Your task to perform on an android device: Is it going to rain tomorrow? Image 0: 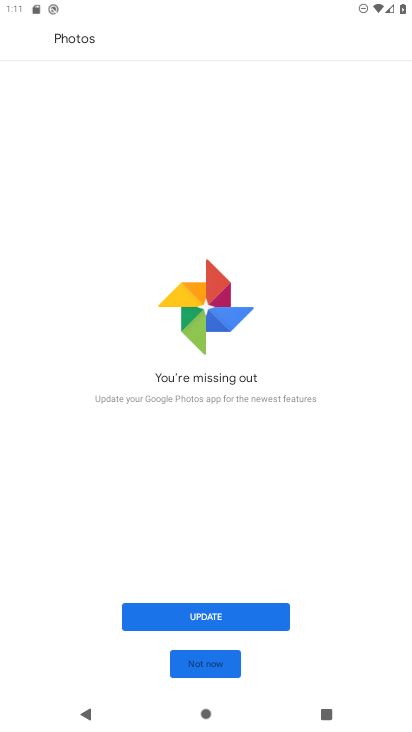
Step 0: press home button
Your task to perform on an android device: Is it going to rain tomorrow? Image 1: 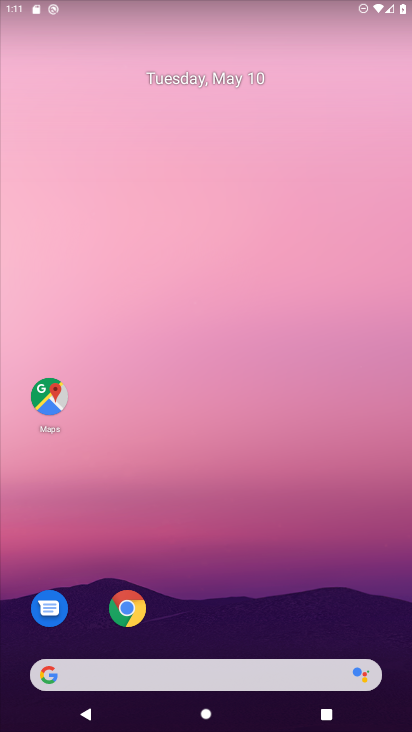
Step 1: drag from (360, 580) to (329, 171)
Your task to perform on an android device: Is it going to rain tomorrow? Image 2: 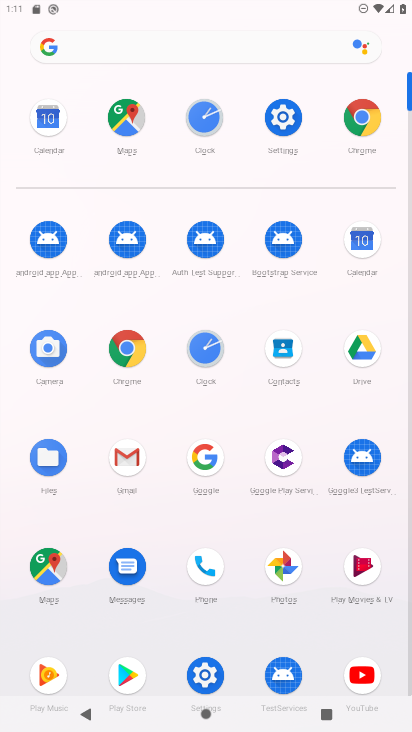
Step 2: click (122, 315)
Your task to perform on an android device: Is it going to rain tomorrow? Image 3: 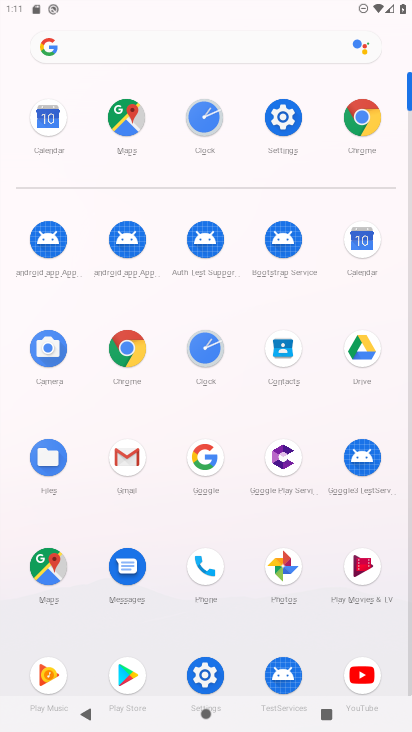
Step 3: click (124, 340)
Your task to perform on an android device: Is it going to rain tomorrow? Image 4: 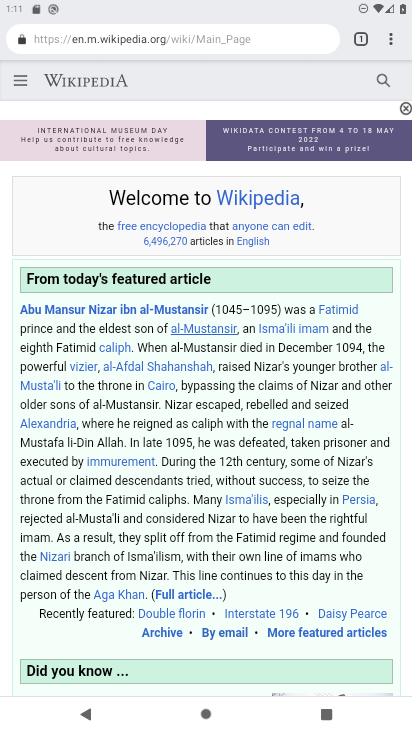
Step 4: click (181, 37)
Your task to perform on an android device: Is it going to rain tomorrow? Image 5: 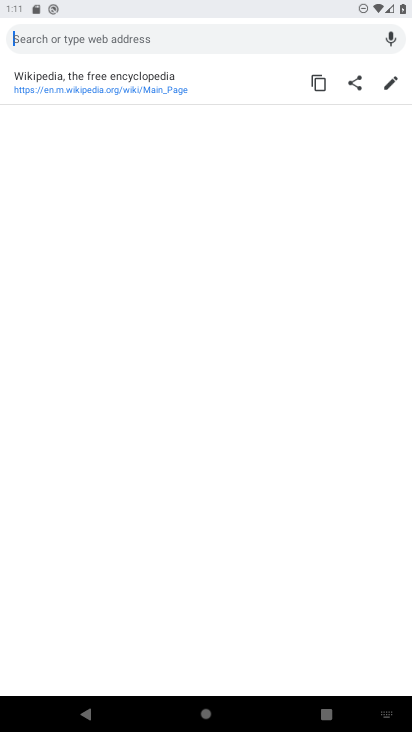
Step 5: type "is it going to rain tomorrow"
Your task to perform on an android device: Is it going to rain tomorrow? Image 6: 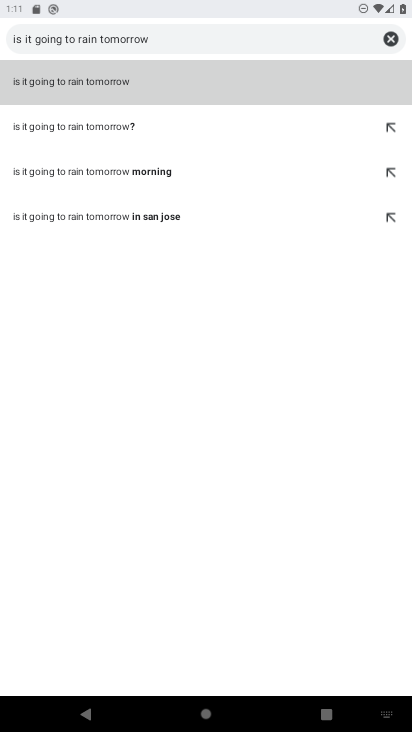
Step 6: click (101, 83)
Your task to perform on an android device: Is it going to rain tomorrow? Image 7: 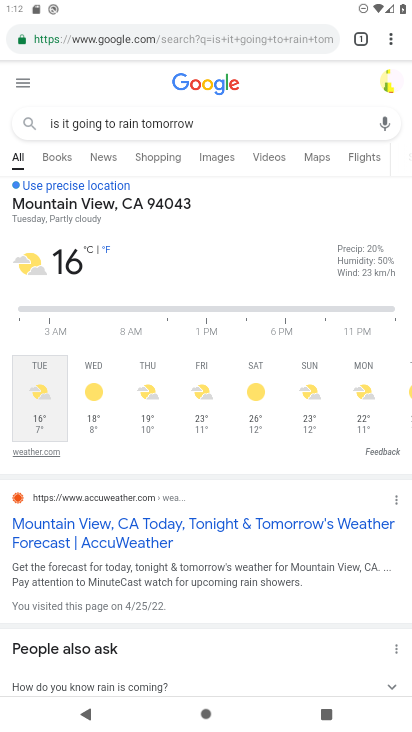
Step 7: task complete